Your task to perform on an android device: find snoozed emails in the gmail app Image 0: 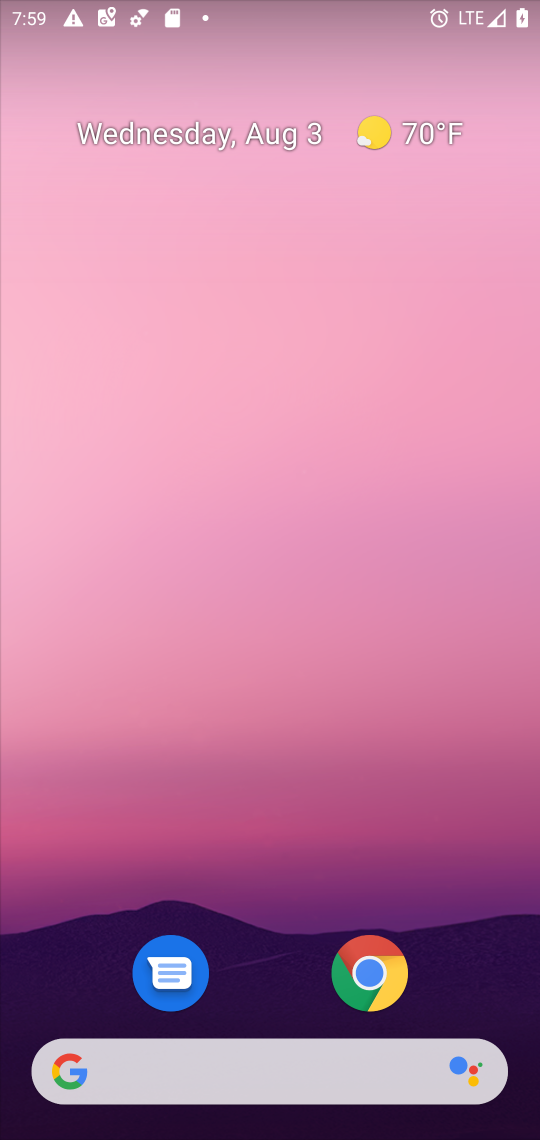
Step 0: drag from (284, 1014) to (249, 116)
Your task to perform on an android device: find snoozed emails in the gmail app Image 1: 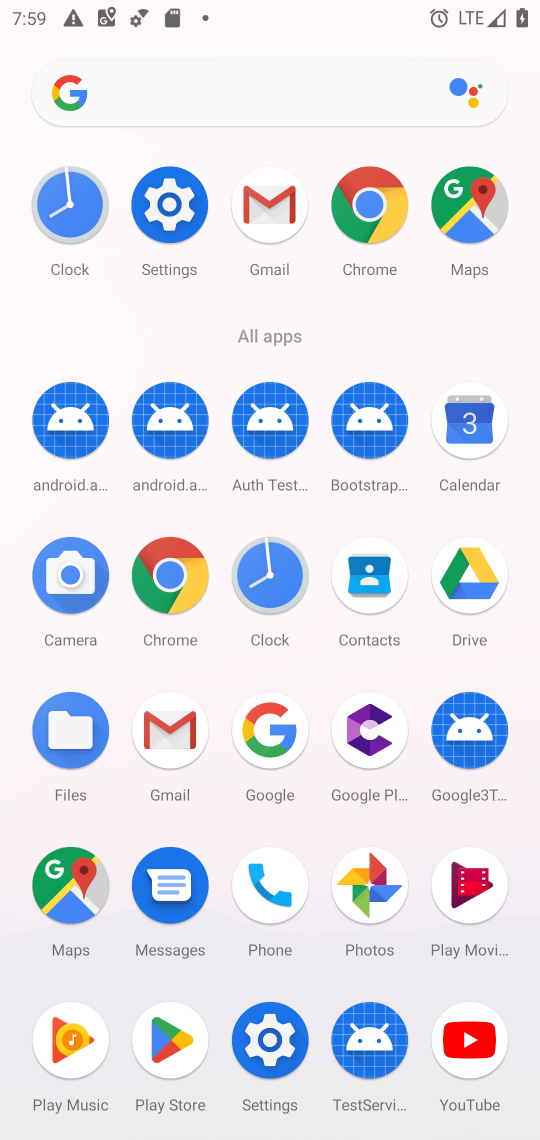
Step 1: click (275, 189)
Your task to perform on an android device: find snoozed emails in the gmail app Image 2: 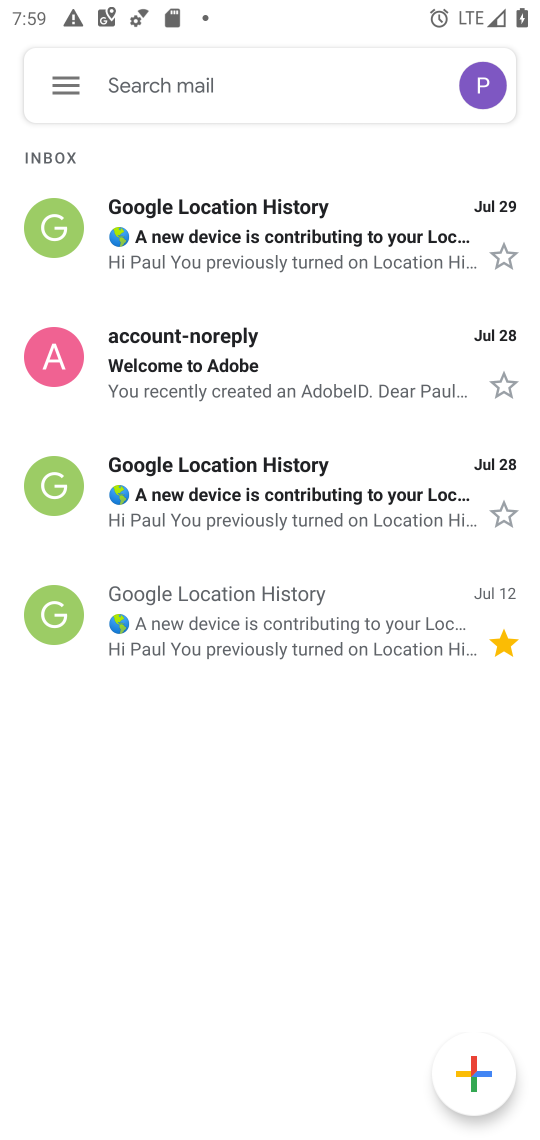
Step 2: click (55, 88)
Your task to perform on an android device: find snoozed emails in the gmail app Image 3: 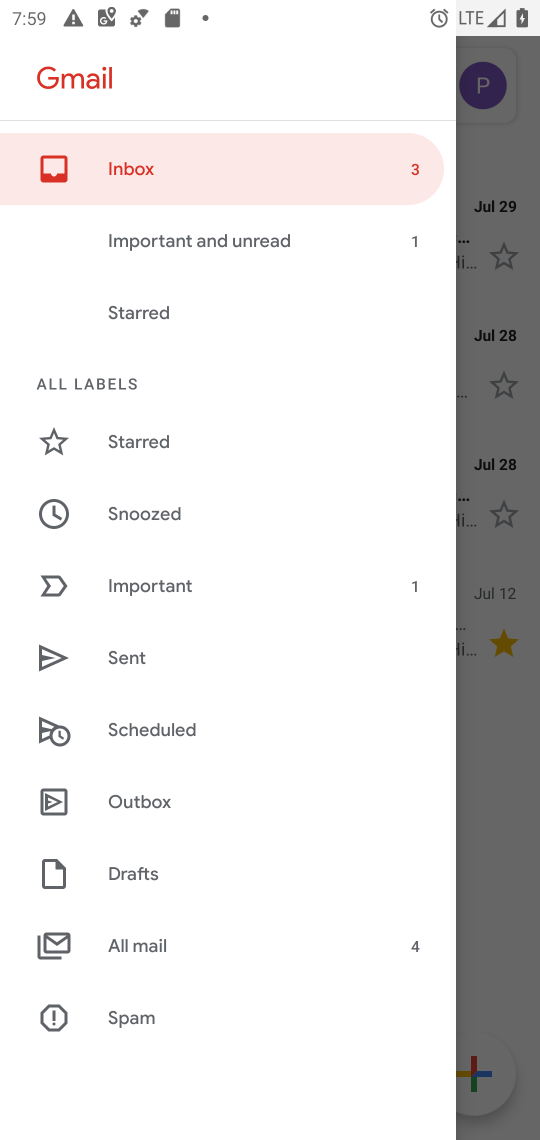
Step 3: click (191, 508)
Your task to perform on an android device: find snoozed emails in the gmail app Image 4: 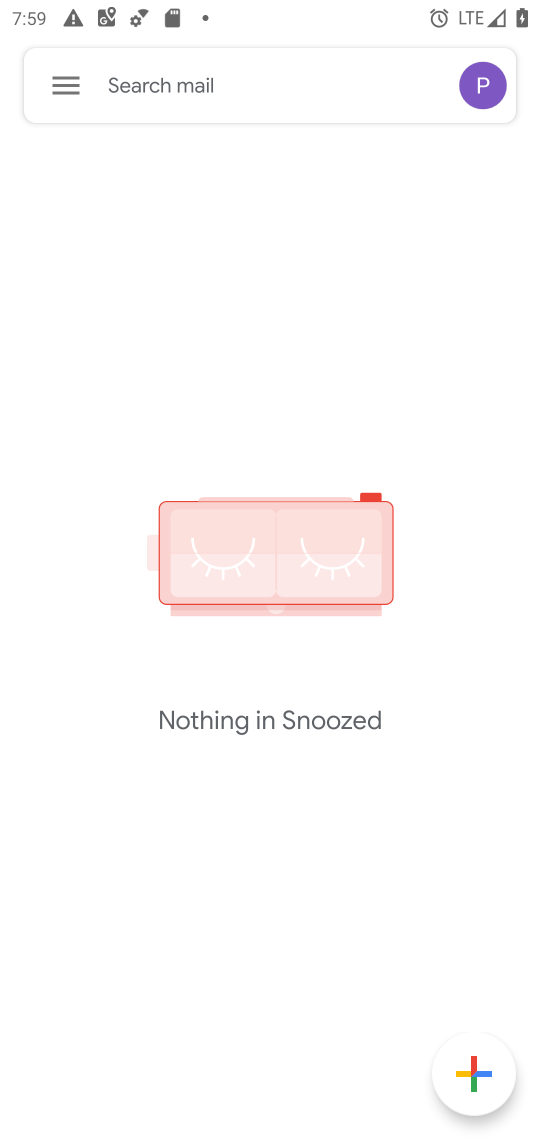
Step 4: task complete